Your task to perform on an android device: Go to Reddit.com Image 0: 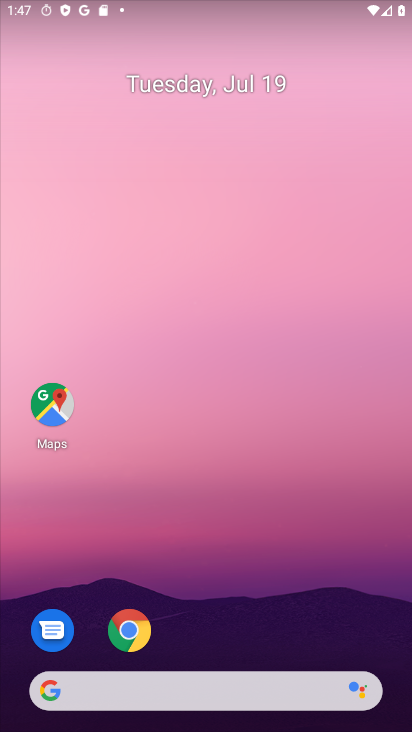
Step 0: click (108, 626)
Your task to perform on an android device: Go to Reddit.com Image 1: 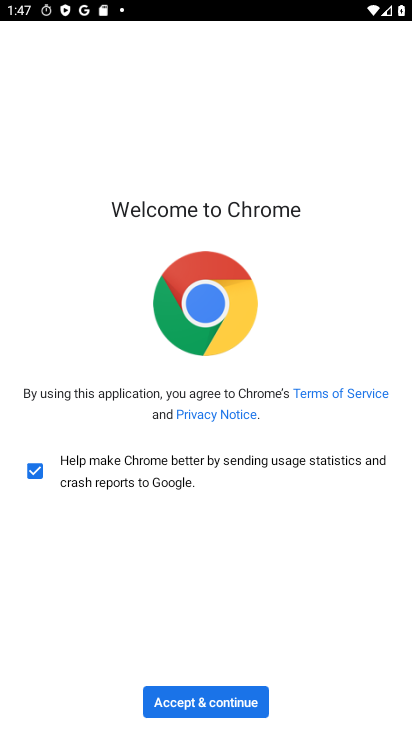
Step 1: click (211, 705)
Your task to perform on an android device: Go to Reddit.com Image 2: 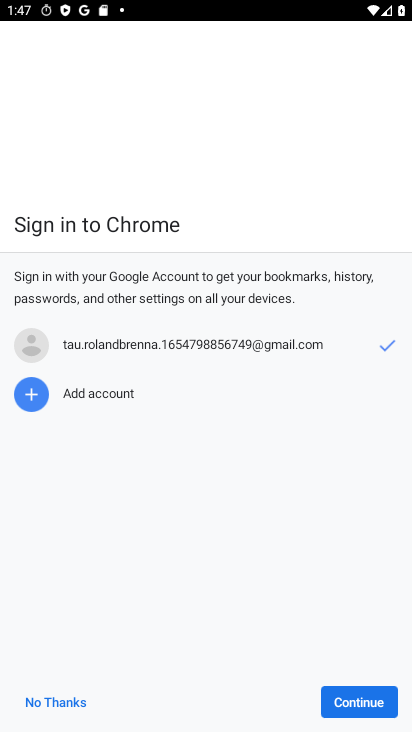
Step 2: click (364, 693)
Your task to perform on an android device: Go to Reddit.com Image 3: 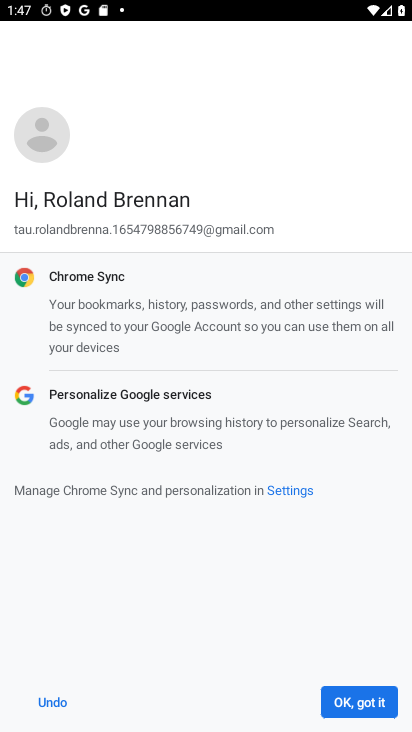
Step 3: click (364, 693)
Your task to perform on an android device: Go to Reddit.com Image 4: 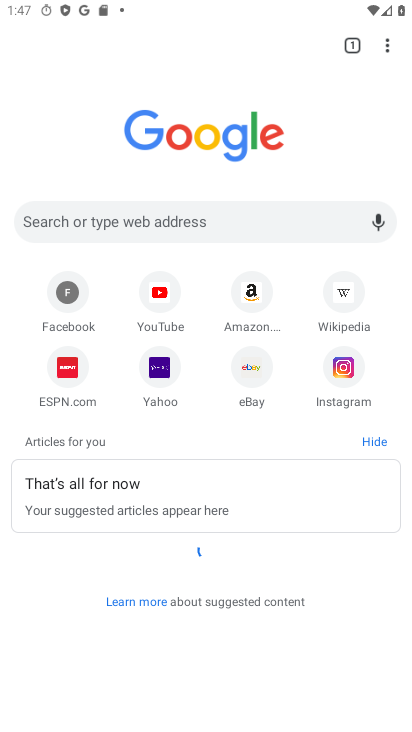
Step 4: click (268, 228)
Your task to perform on an android device: Go to Reddit.com Image 5: 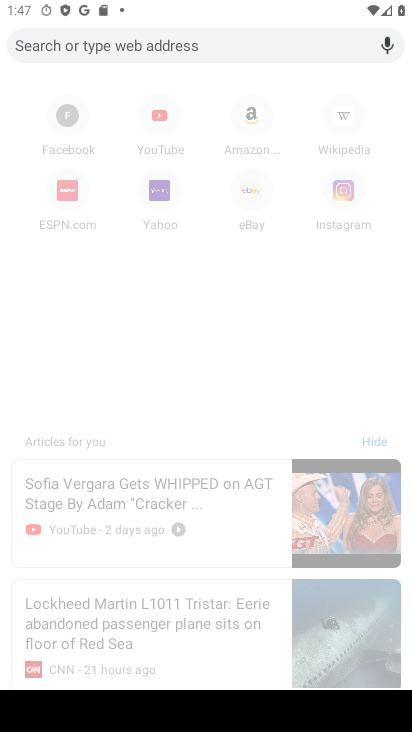
Step 5: type "Reddit.com"
Your task to perform on an android device: Go to Reddit.com Image 6: 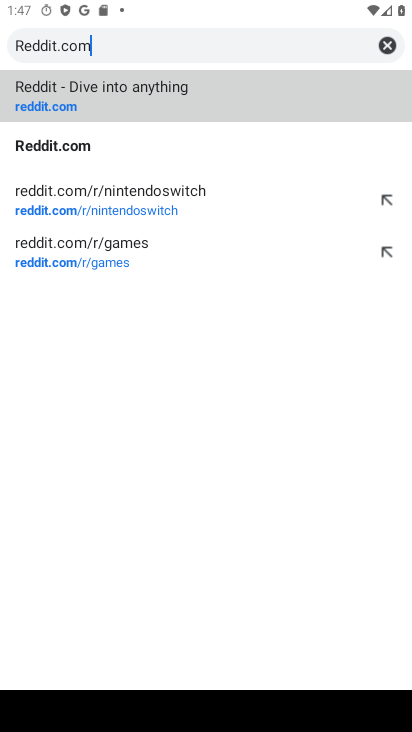
Step 6: click (221, 96)
Your task to perform on an android device: Go to Reddit.com Image 7: 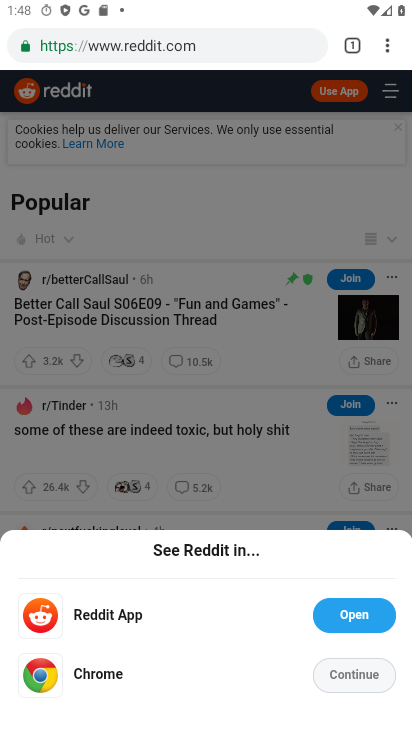
Step 7: task complete